Your task to perform on an android device: Open privacy settings Image 0: 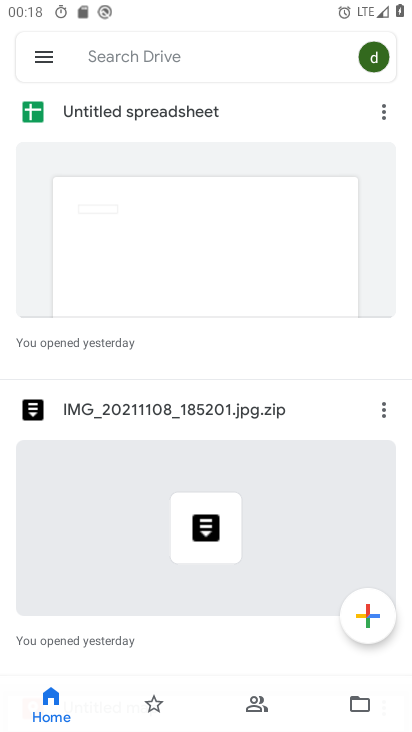
Step 0: press back button
Your task to perform on an android device: Open privacy settings Image 1: 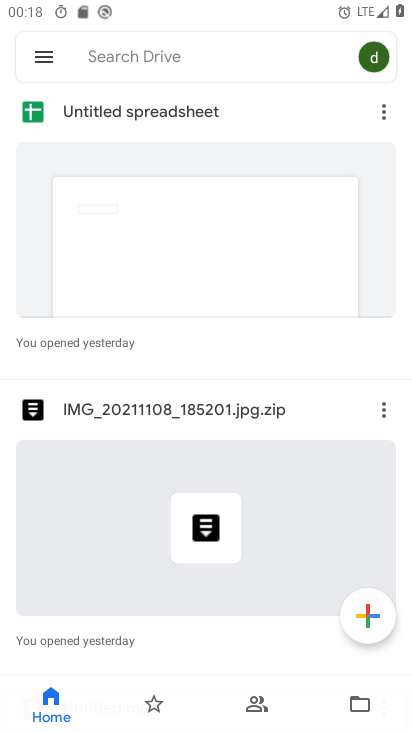
Step 1: press back button
Your task to perform on an android device: Open privacy settings Image 2: 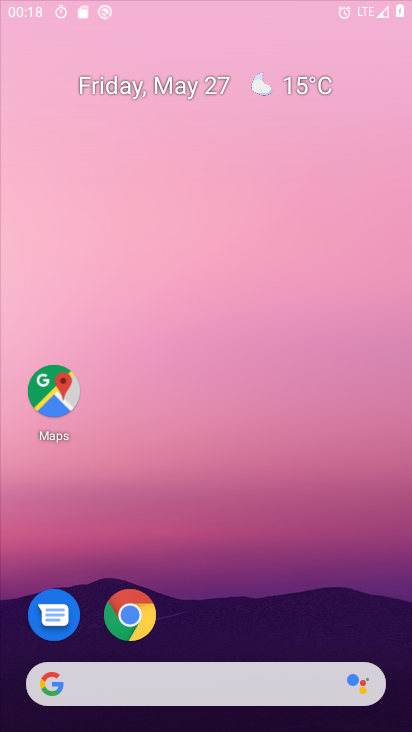
Step 2: press back button
Your task to perform on an android device: Open privacy settings Image 3: 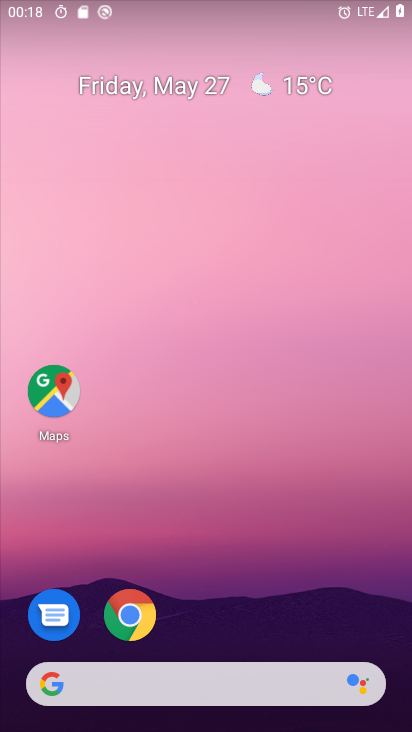
Step 3: drag from (310, 706) to (59, 66)
Your task to perform on an android device: Open privacy settings Image 4: 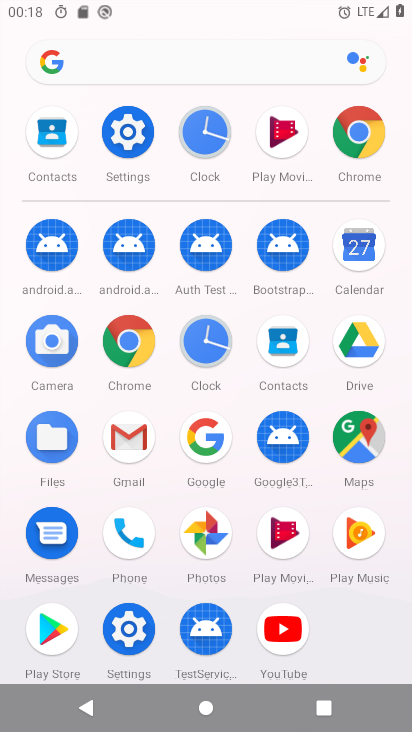
Step 4: click (124, 137)
Your task to perform on an android device: Open privacy settings Image 5: 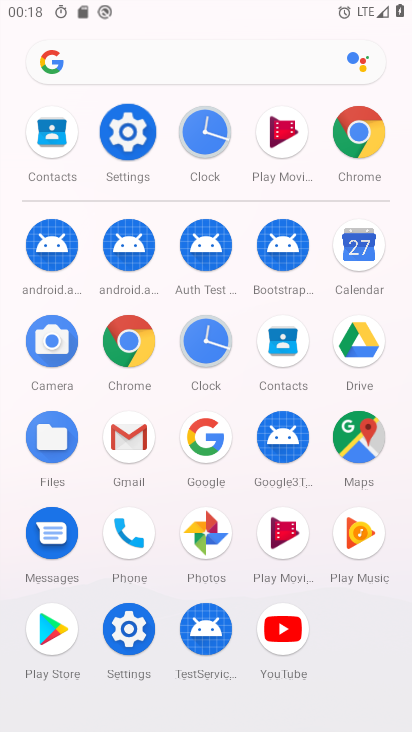
Step 5: click (124, 137)
Your task to perform on an android device: Open privacy settings Image 6: 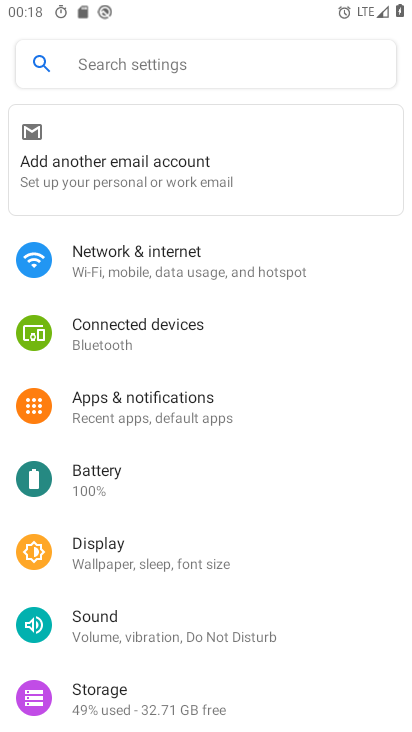
Step 6: click (125, 257)
Your task to perform on an android device: Open privacy settings Image 7: 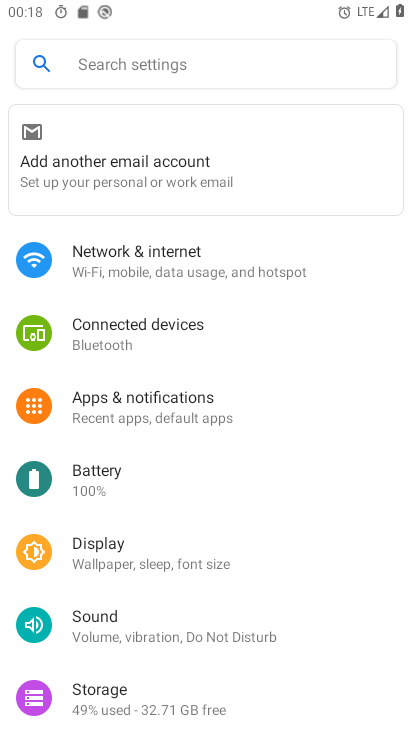
Step 7: click (126, 255)
Your task to perform on an android device: Open privacy settings Image 8: 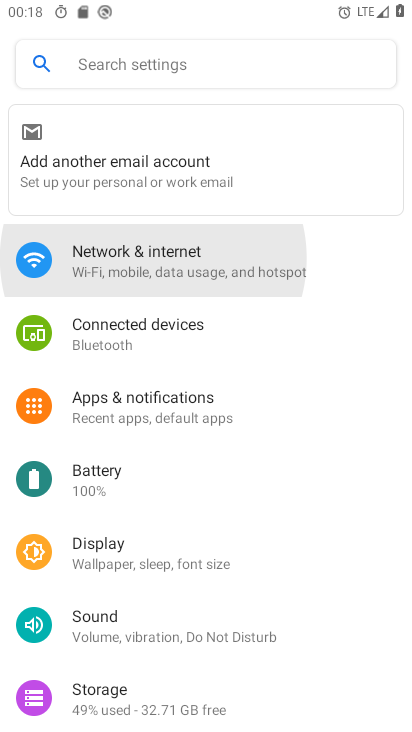
Step 8: click (126, 255)
Your task to perform on an android device: Open privacy settings Image 9: 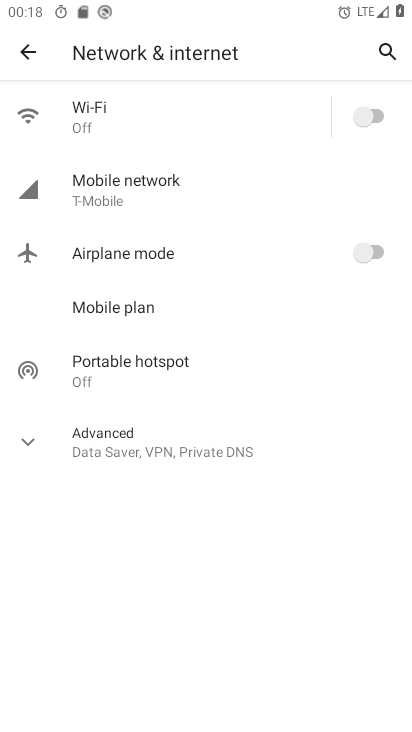
Step 9: click (363, 125)
Your task to perform on an android device: Open privacy settings Image 10: 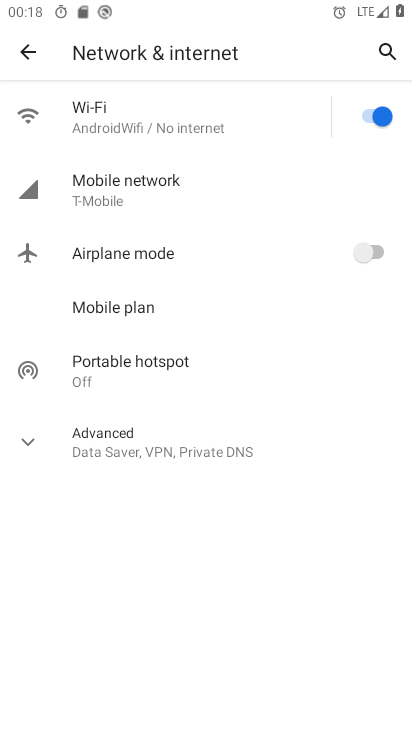
Step 10: task complete